Your task to perform on an android device: Empty the shopping cart on target. Image 0: 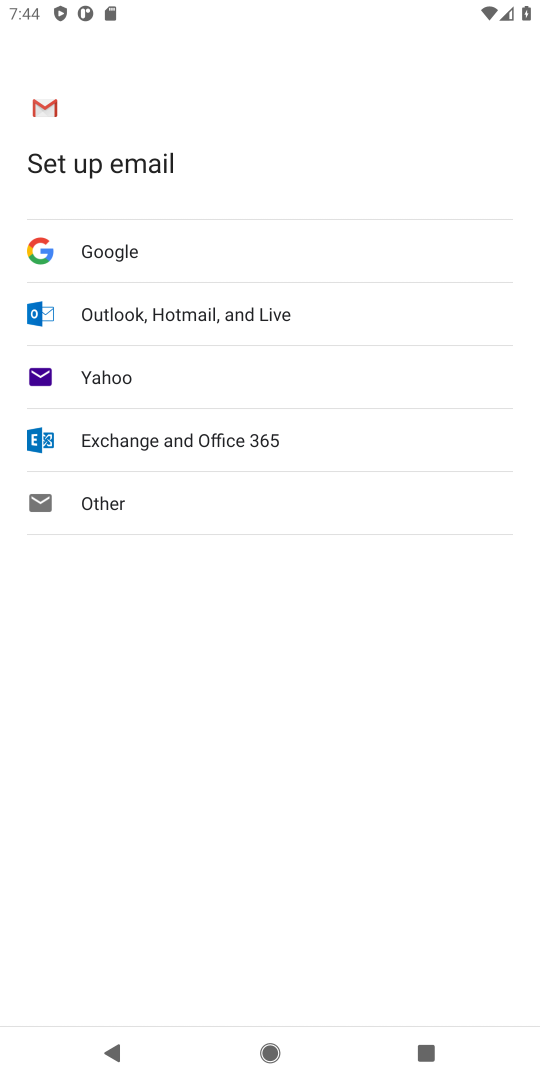
Step 0: press home button
Your task to perform on an android device: Empty the shopping cart on target. Image 1: 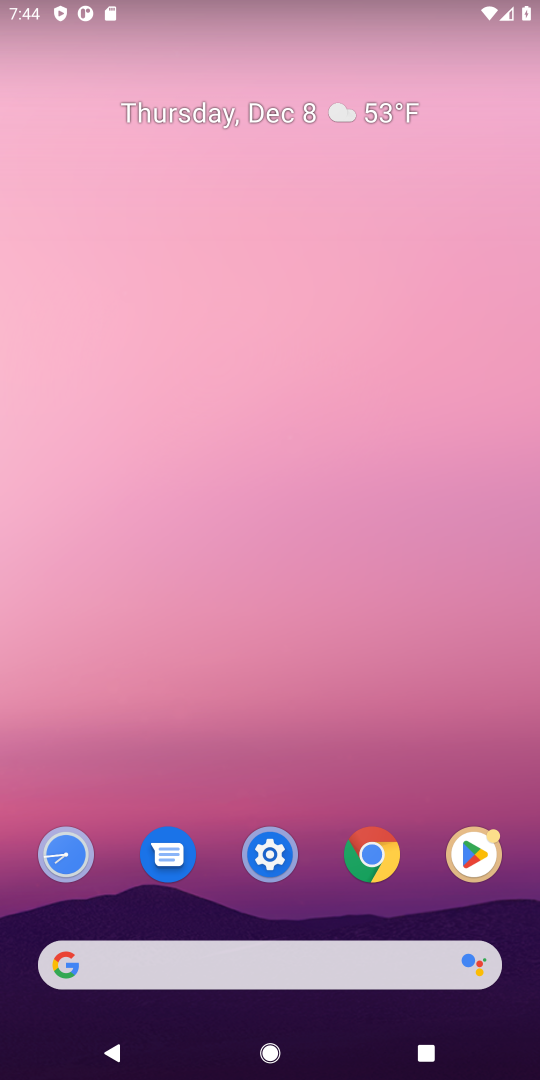
Step 1: click (121, 964)
Your task to perform on an android device: Empty the shopping cart on target. Image 2: 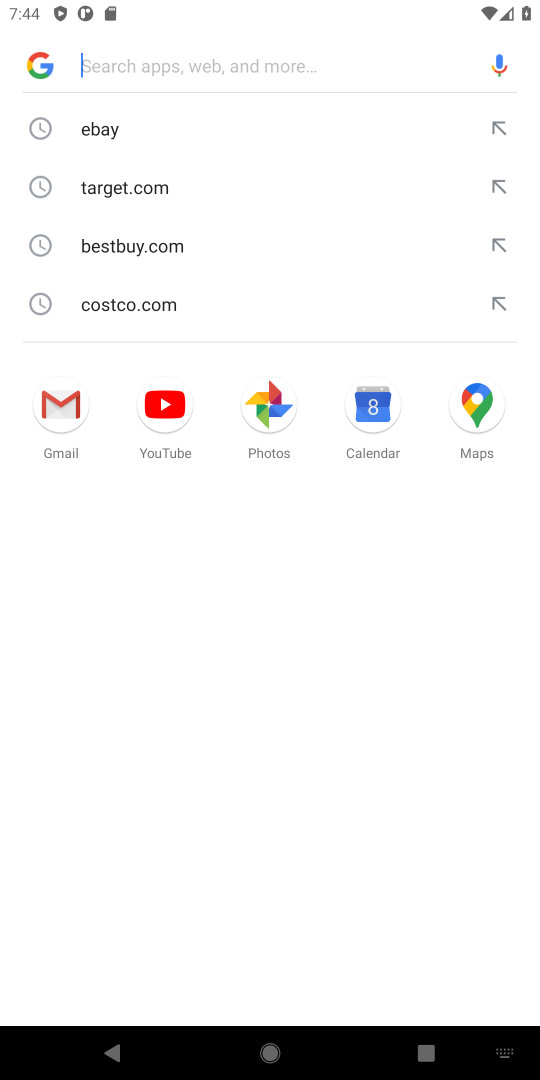
Step 2: type "target"
Your task to perform on an android device: Empty the shopping cart on target. Image 3: 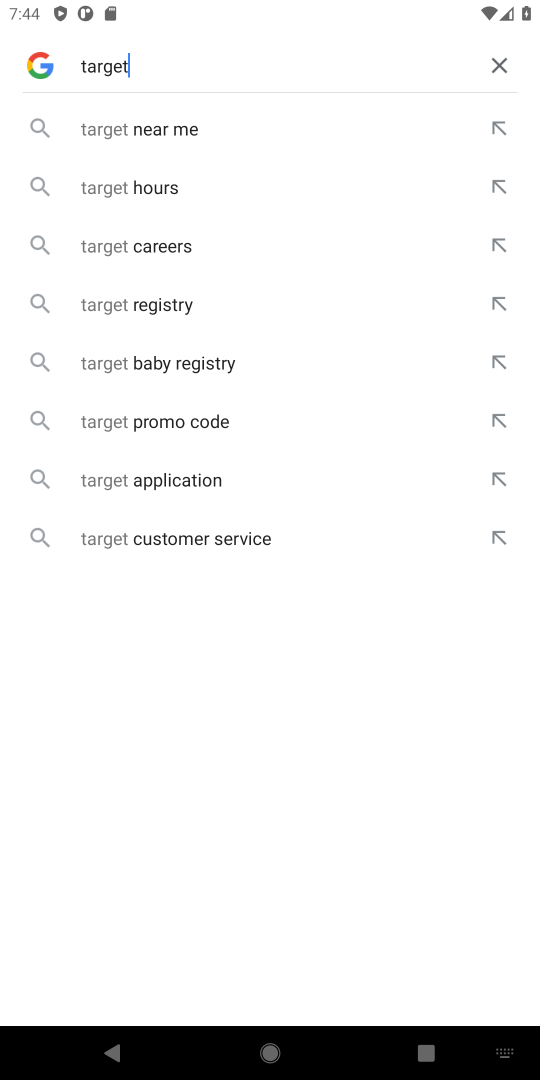
Step 3: press enter
Your task to perform on an android device: Empty the shopping cart on target. Image 4: 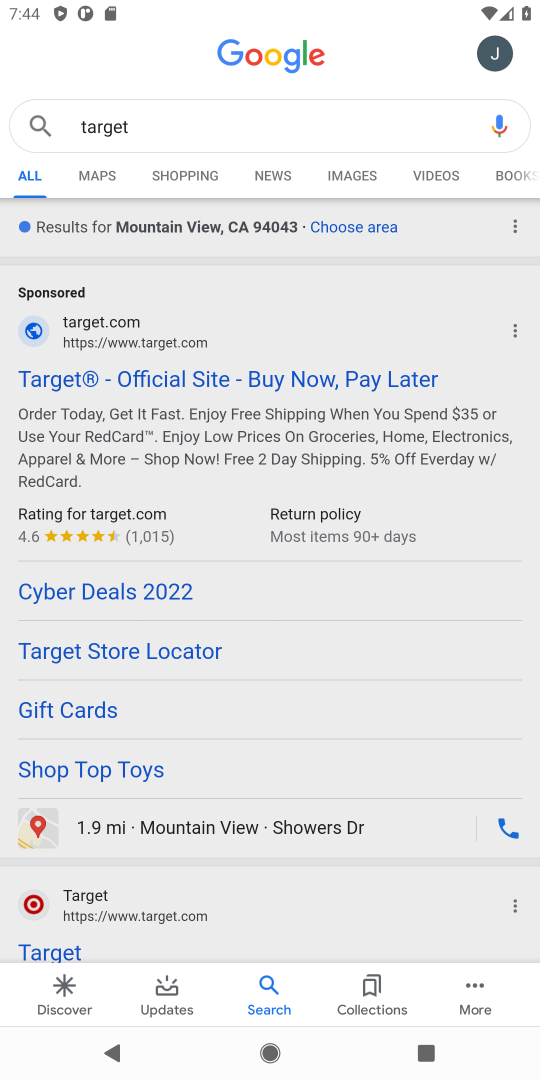
Step 4: click (224, 384)
Your task to perform on an android device: Empty the shopping cart on target. Image 5: 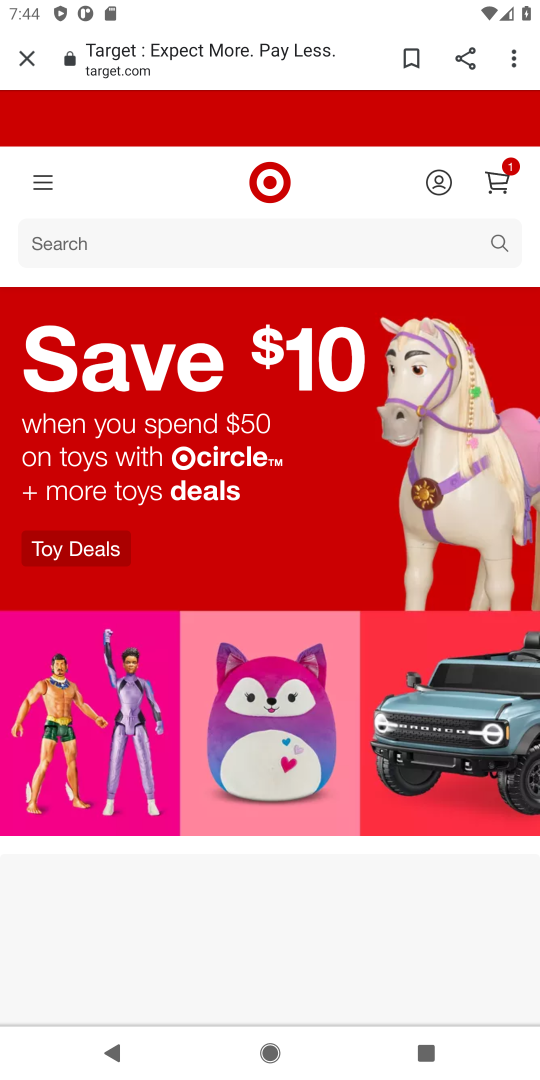
Step 5: click (496, 167)
Your task to perform on an android device: Empty the shopping cart on target. Image 6: 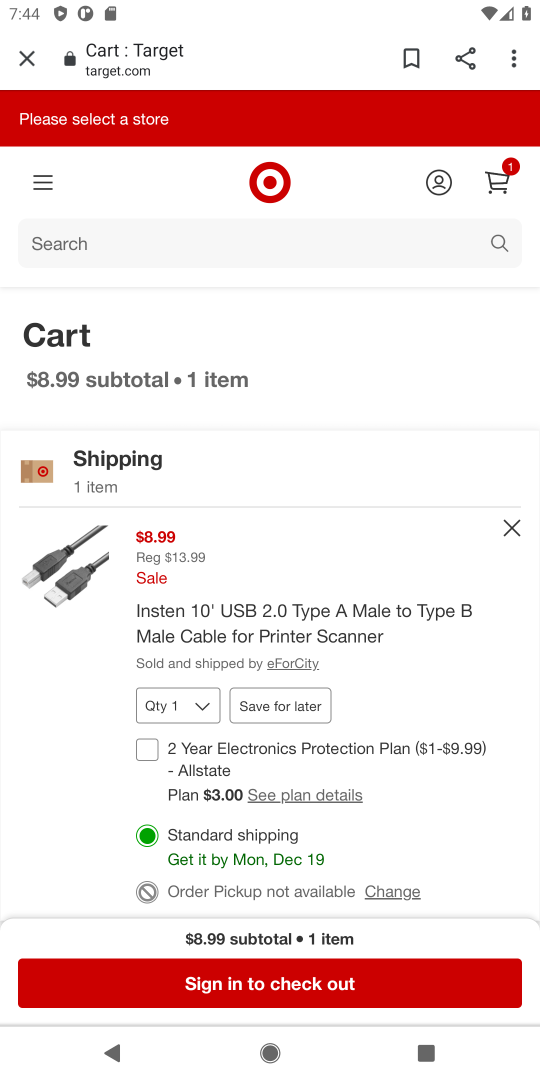
Step 6: click (511, 527)
Your task to perform on an android device: Empty the shopping cart on target. Image 7: 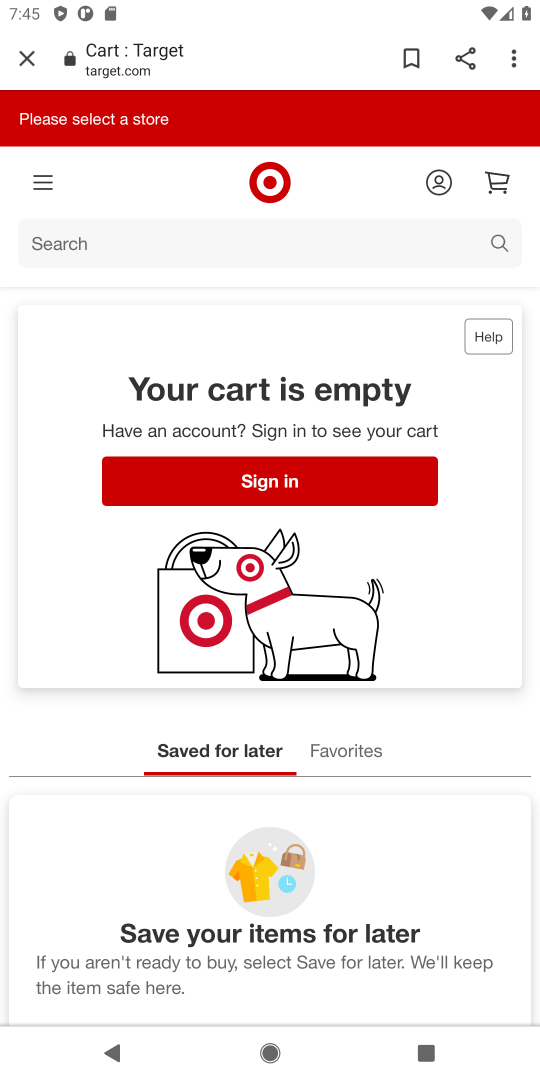
Step 7: task complete